Your task to perform on an android device: toggle data saver in the chrome app Image 0: 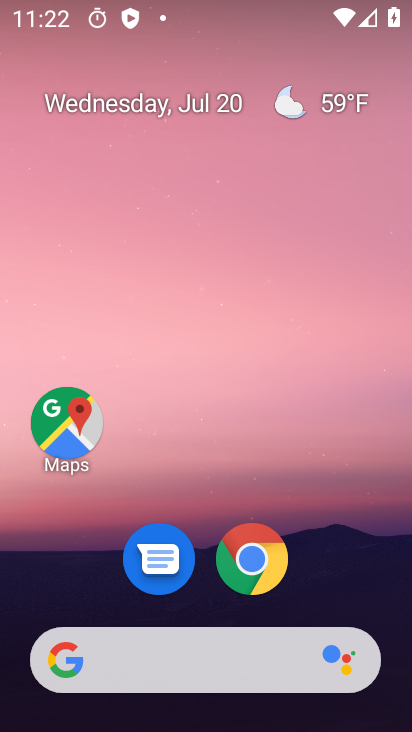
Step 0: click (265, 558)
Your task to perform on an android device: toggle data saver in the chrome app Image 1: 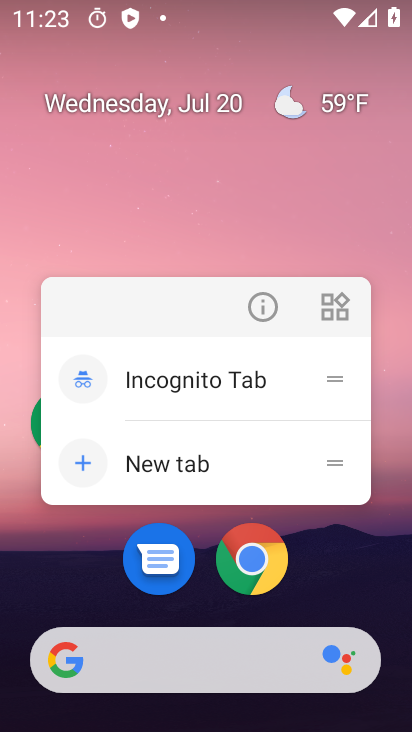
Step 1: click (263, 567)
Your task to perform on an android device: toggle data saver in the chrome app Image 2: 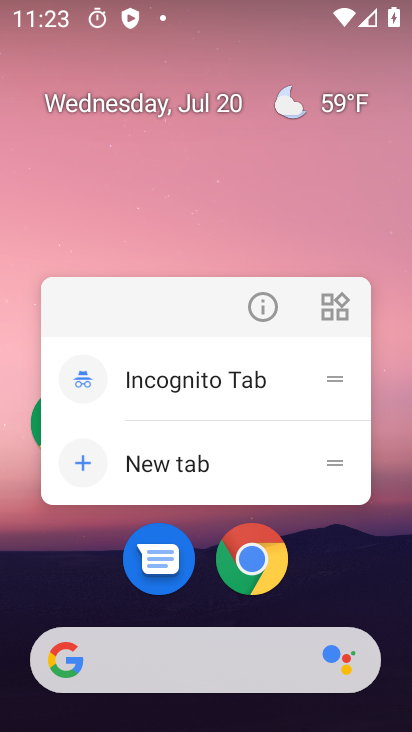
Step 2: click (255, 561)
Your task to perform on an android device: toggle data saver in the chrome app Image 3: 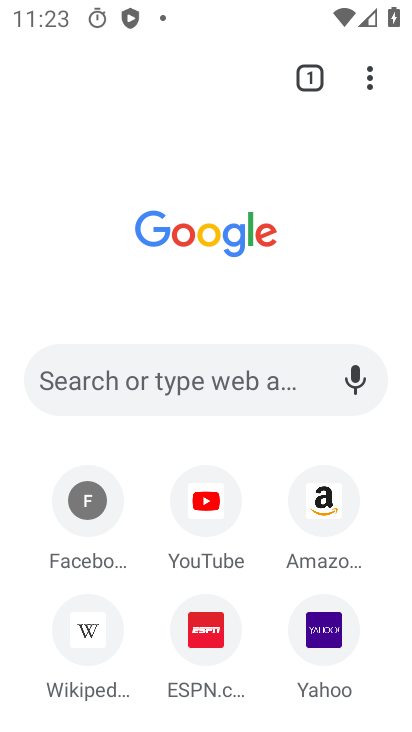
Step 3: drag from (373, 80) to (102, 596)
Your task to perform on an android device: toggle data saver in the chrome app Image 4: 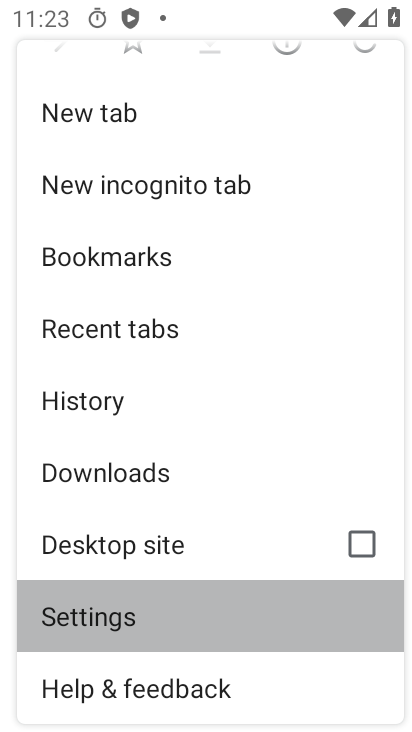
Step 4: click (103, 595)
Your task to perform on an android device: toggle data saver in the chrome app Image 5: 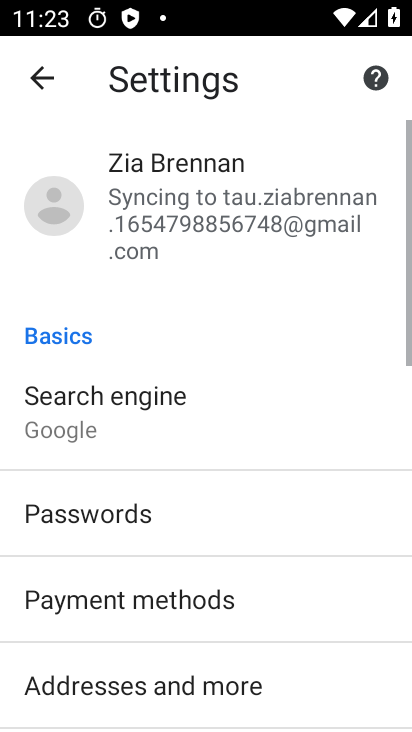
Step 5: drag from (101, 559) to (192, 60)
Your task to perform on an android device: toggle data saver in the chrome app Image 6: 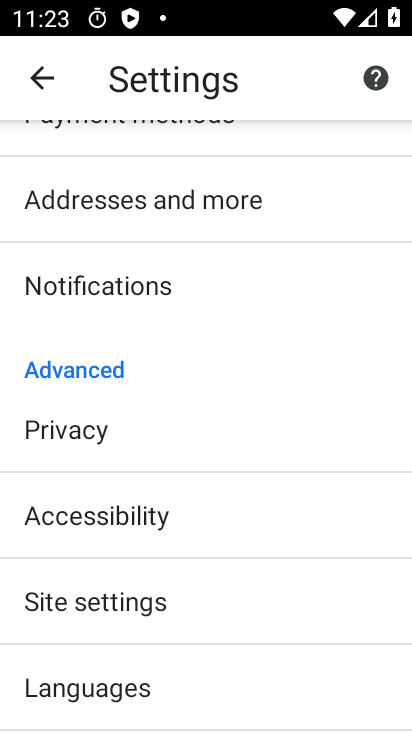
Step 6: drag from (116, 652) to (238, 108)
Your task to perform on an android device: toggle data saver in the chrome app Image 7: 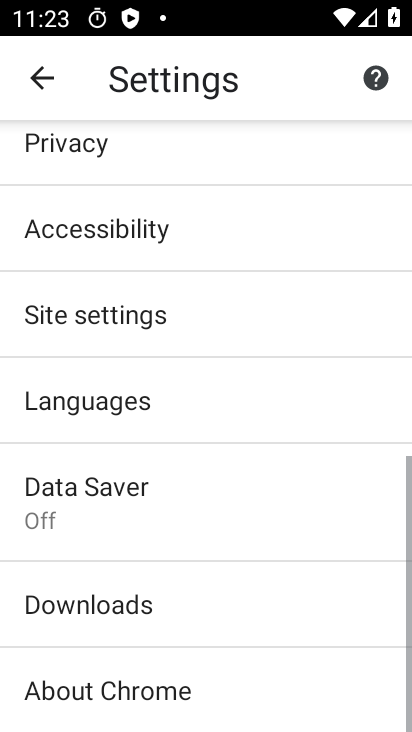
Step 7: click (113, 501)
Your task to perform on an android device: toggle data saver in the chrome app Image 8: 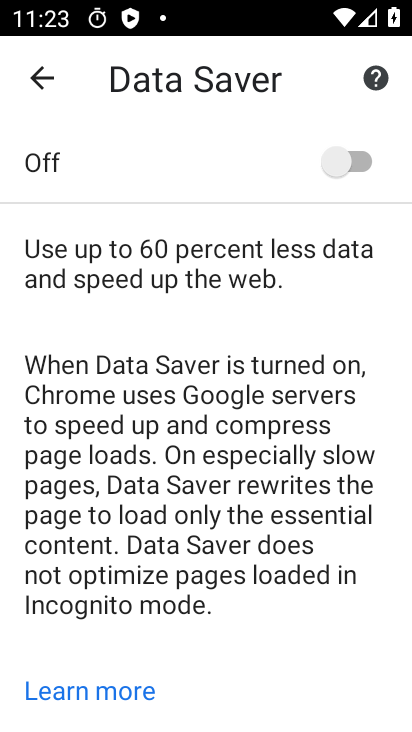
Step 8: click (344, 154)
Your task to perform on an android device: toggle data saver in the chrome app Image 9: 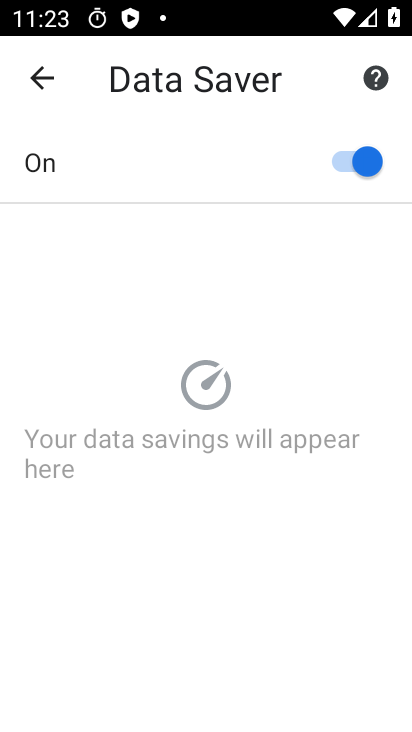
Step 9: task complete